Your task to perform on an android device: Clear the shopping cart on walmart. Search for "usb-b" on walmart, select the first entry, add it to the cart, then select checkout. Image 0: 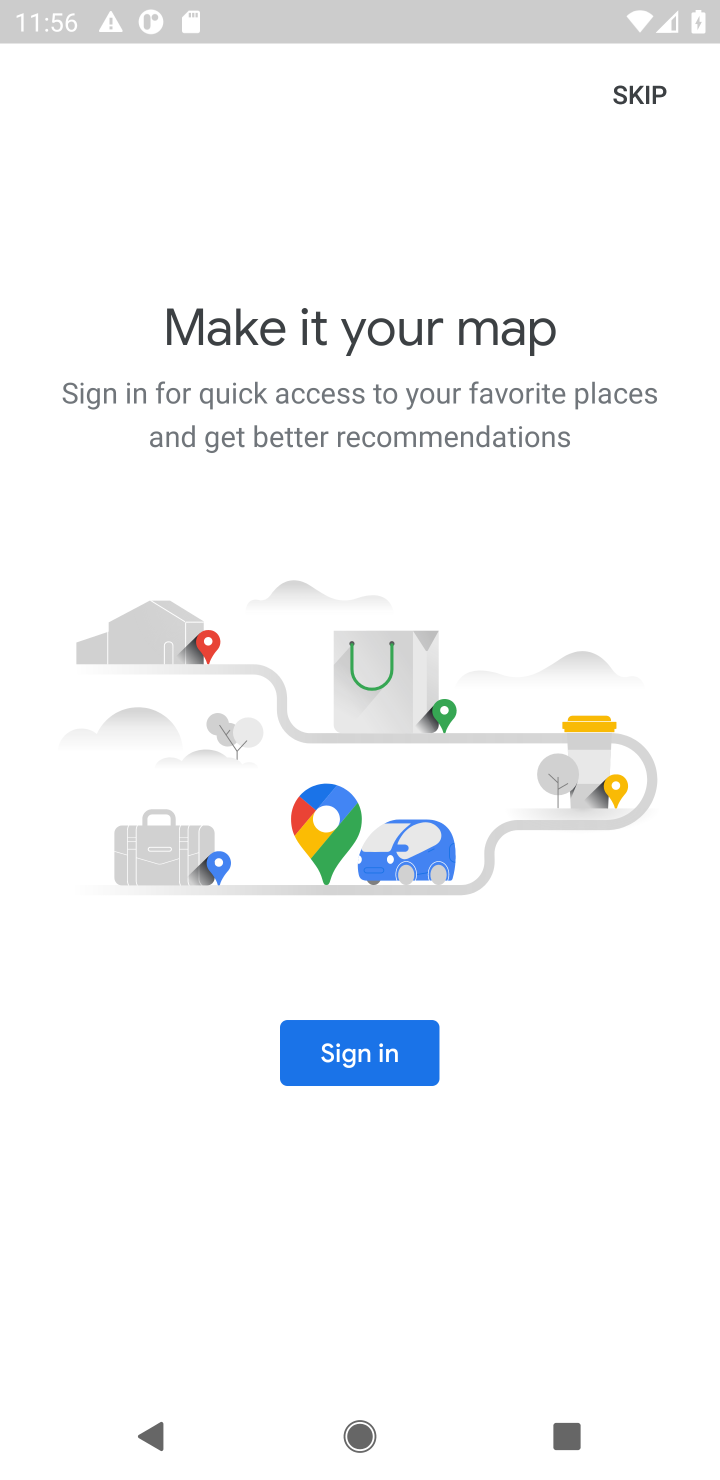
Step 0: press home button
Your task to perform on an android device: Clear the shopping cart on walmart. Search for "usb-b" on walmart, select the first entry, add it to the cart, then select checkout. Image 1: 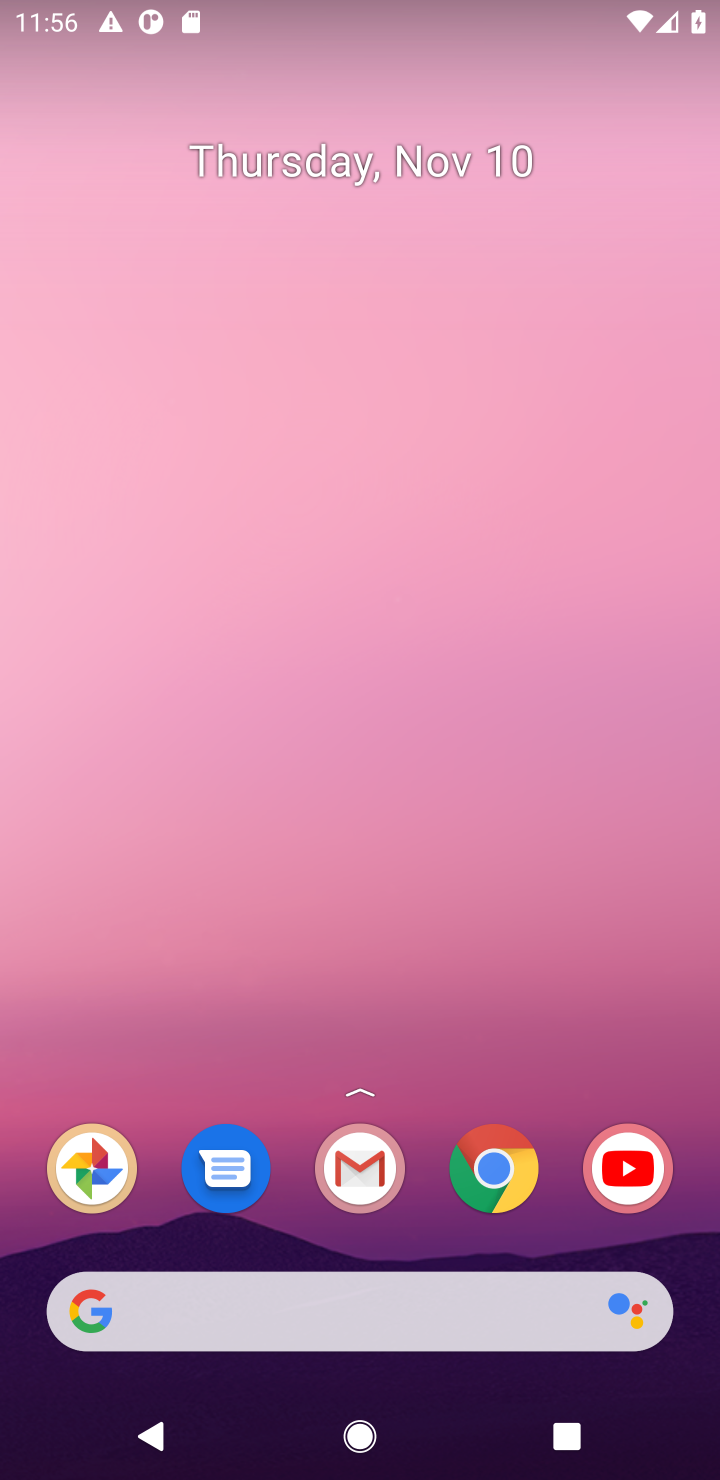
Step 1: click (495, 1185)
Your task to perform on an android device: Clear the shopping cart on walmart. Search for "usb-b" on walmart, select the first entry, add it to the cart, then select checkout. Image 2: 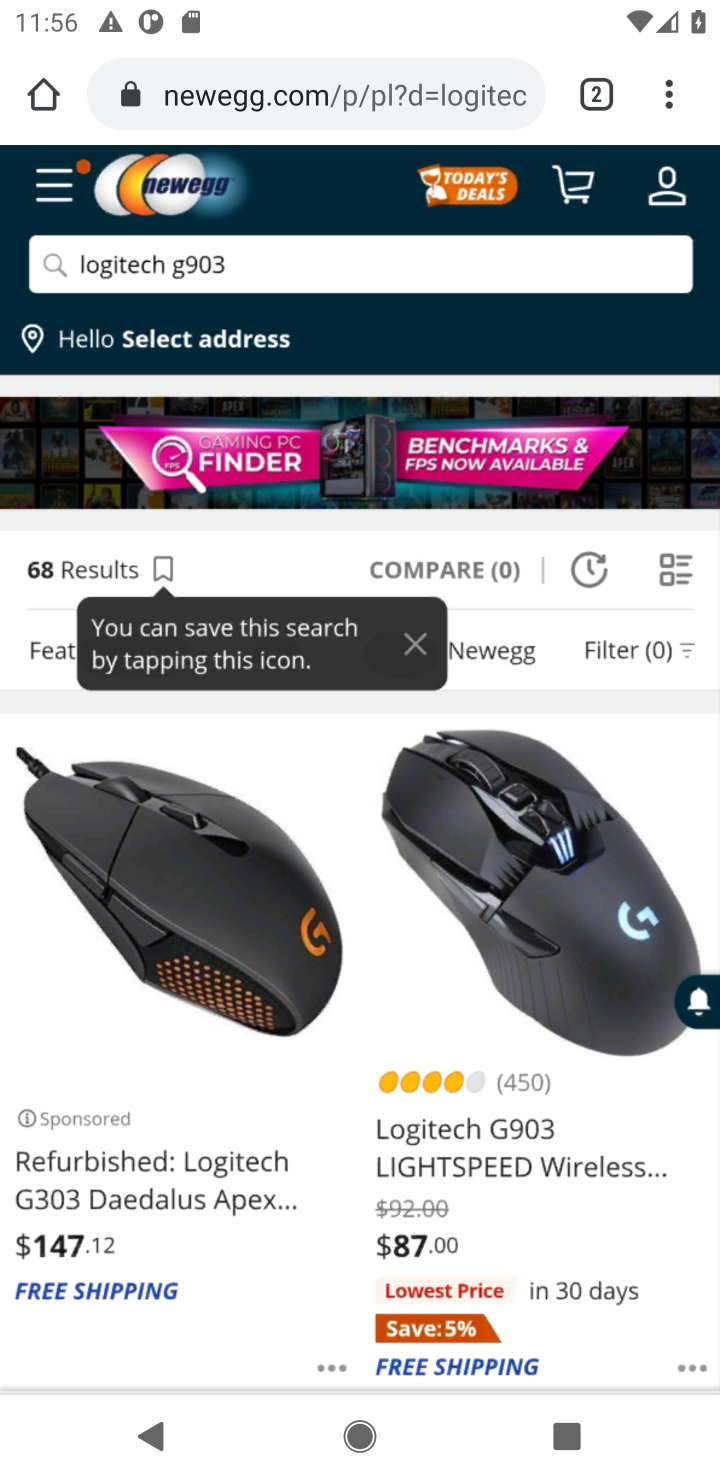
Step 2: click (249, 102)
Your task to perform on an android device: Clear the shopping cart on walmart. Search for "usb-b" on walmart, select the first entry, add it to the cart, then select checkout. Image 3: 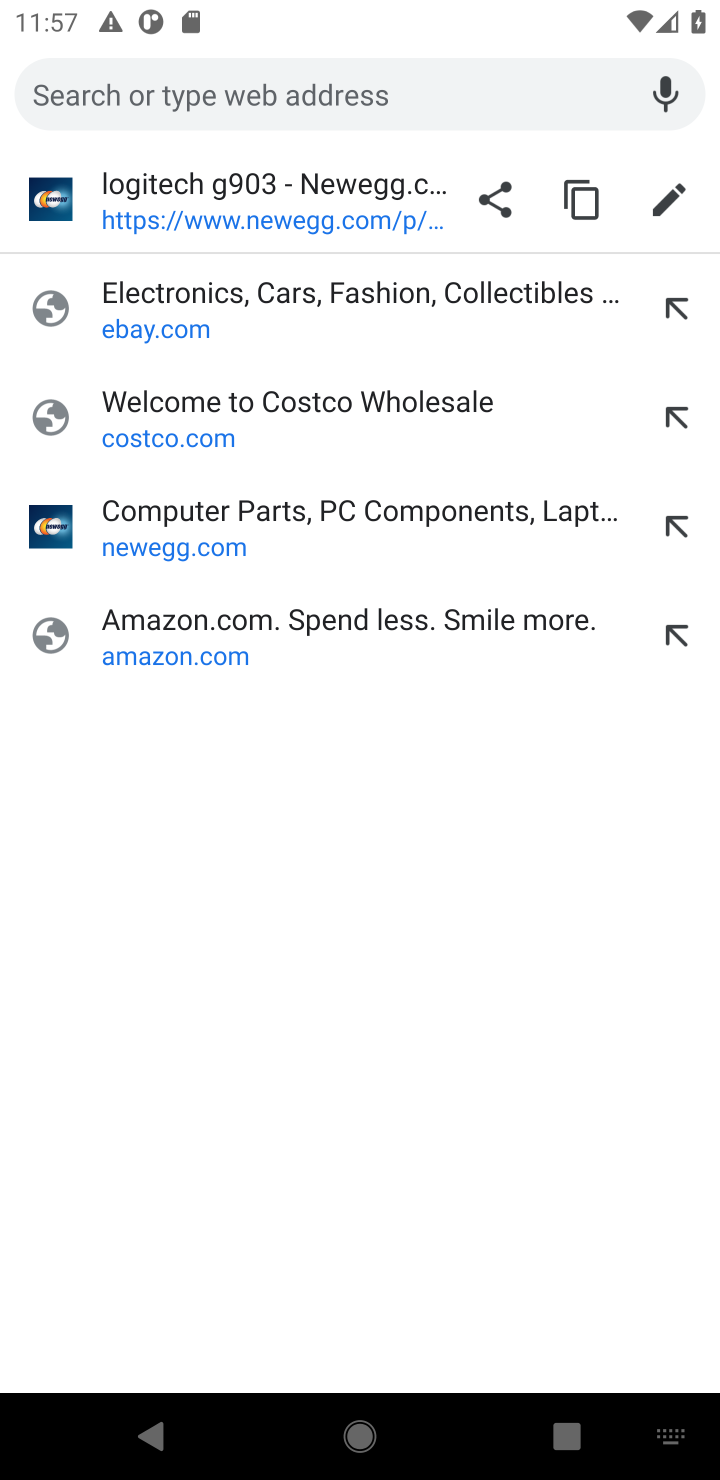
Step 3: type "walmart.com"
Your task to perform on an android device: Clear the shopping cart on walmart. Search for "usb-b" on walmart, select the first entry, add it to the cart, then select checkout. Image 4: 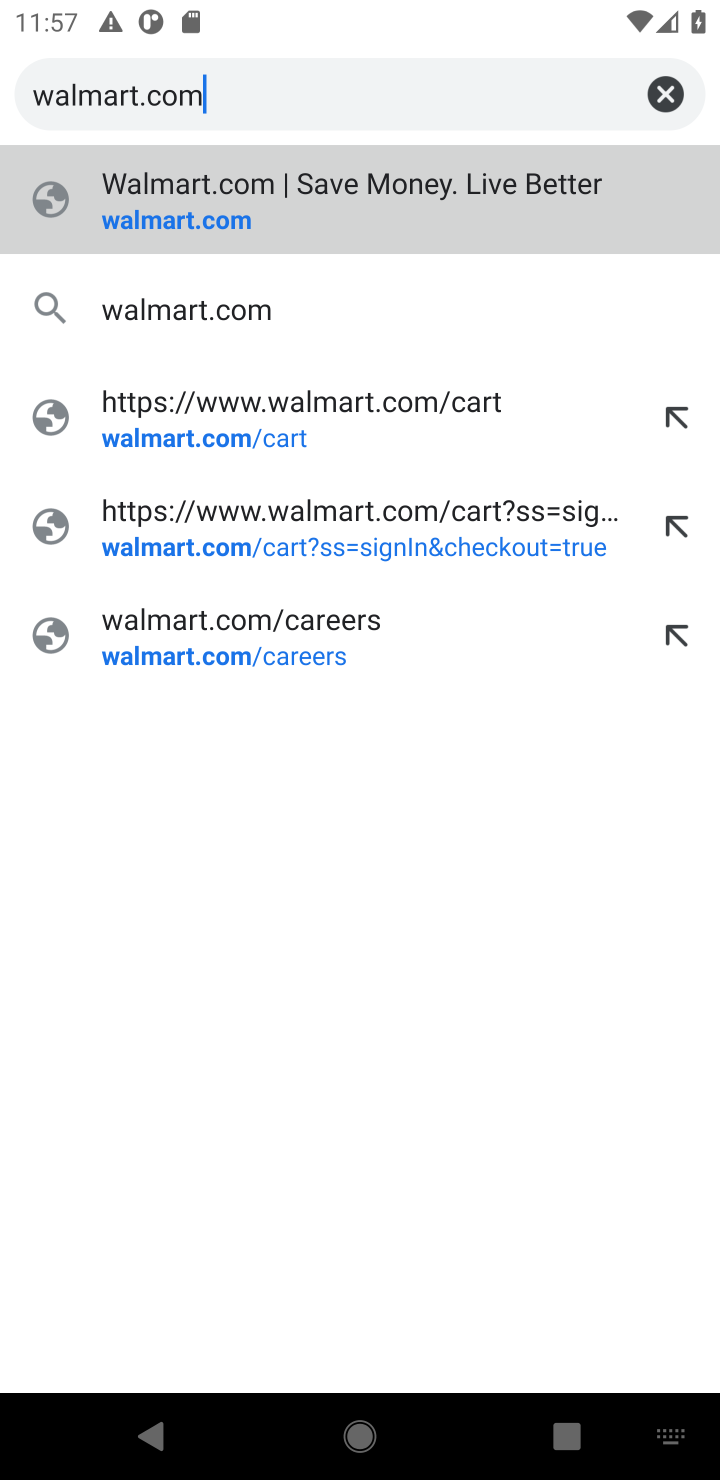
Step 4: click (196, 219)
Your task to perform on an android device: Clear the shopping cart on walmart. Search for "usb-b" on walmart, select the first entry, add it to the cart, then select checkout. Image 5: 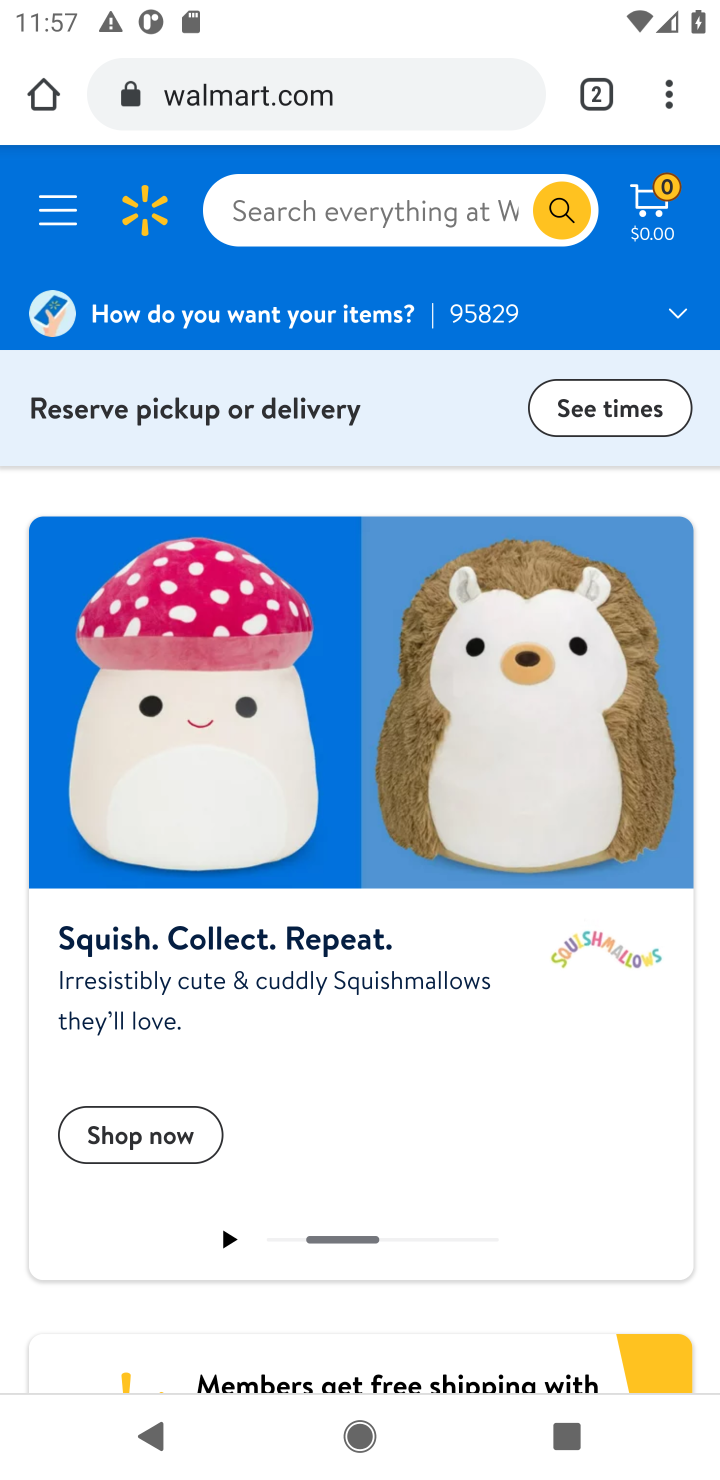
Step 5: click (647, 209)
Your task to perform on an android device: Clear the shopping cart on walmart. Search for "usb-b" on walmart, select the first entry, add it to the cart, then select checkout. Image 6: 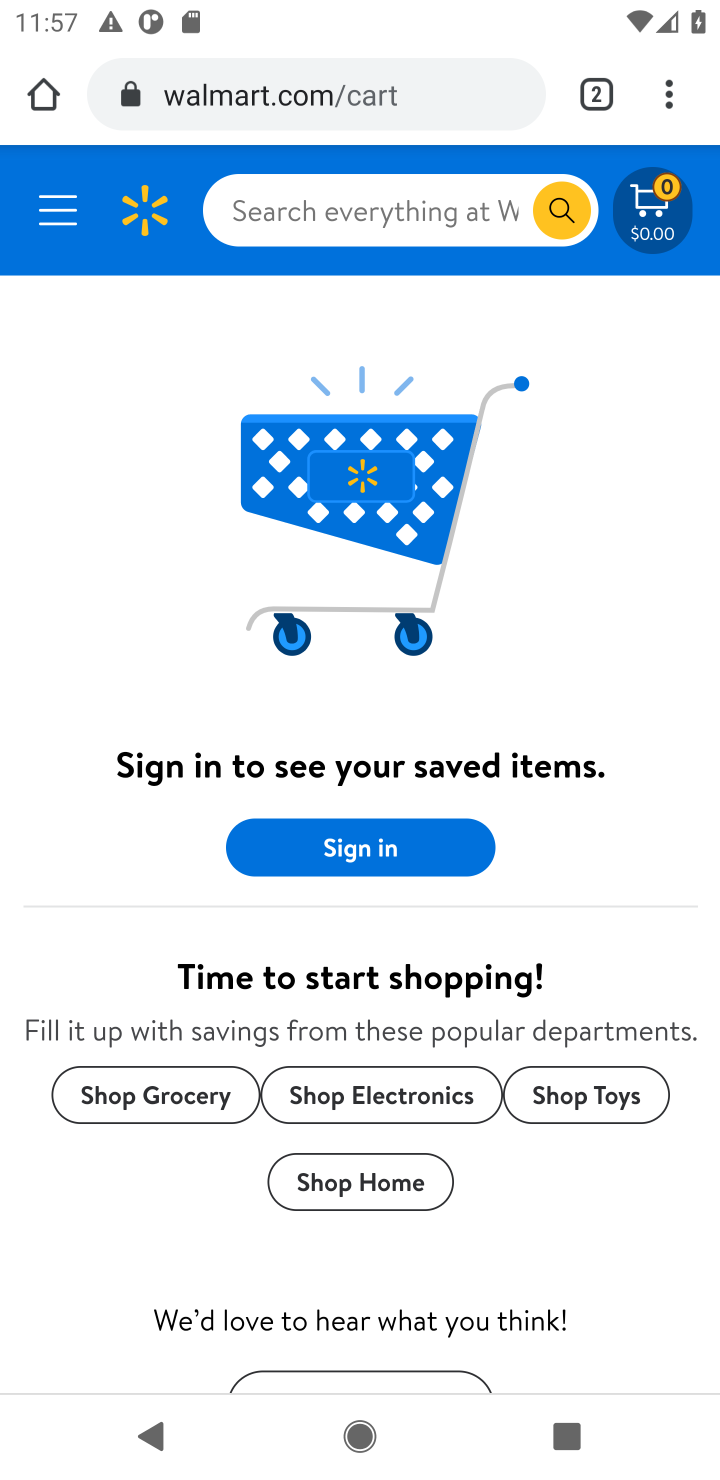
Step 6: click (259, 199)
Your task to perform on an android device: Clear the shopping cart on walmart. Search for "usb-b" on walmart, select the first entry, add it to the cart, then select checkout. Image 7: 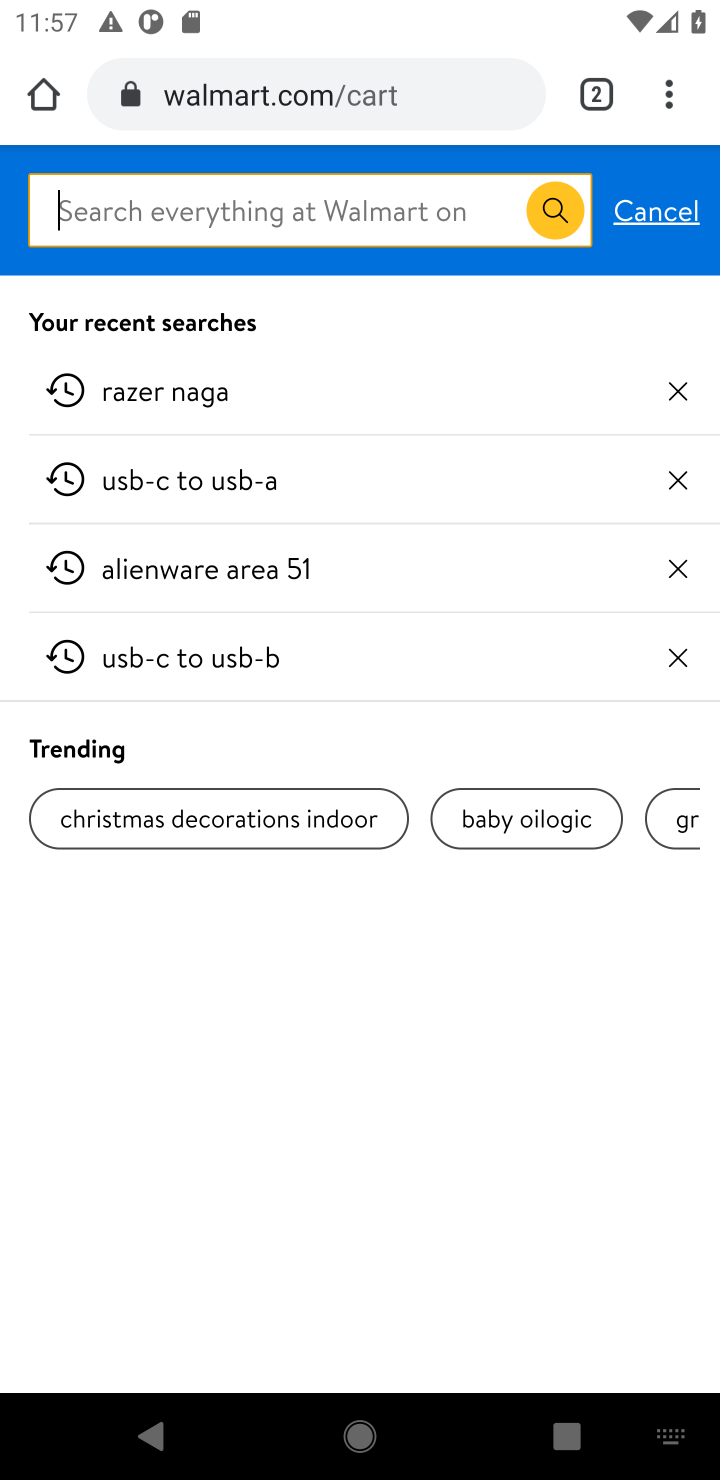
Step 7: type "usb-b"
Your task to perform on an android device: Clear the shopping cart on walmart. Search for "usb-b" on walmart, select the first entry, add it to the cart, then select checkout. Image 8: 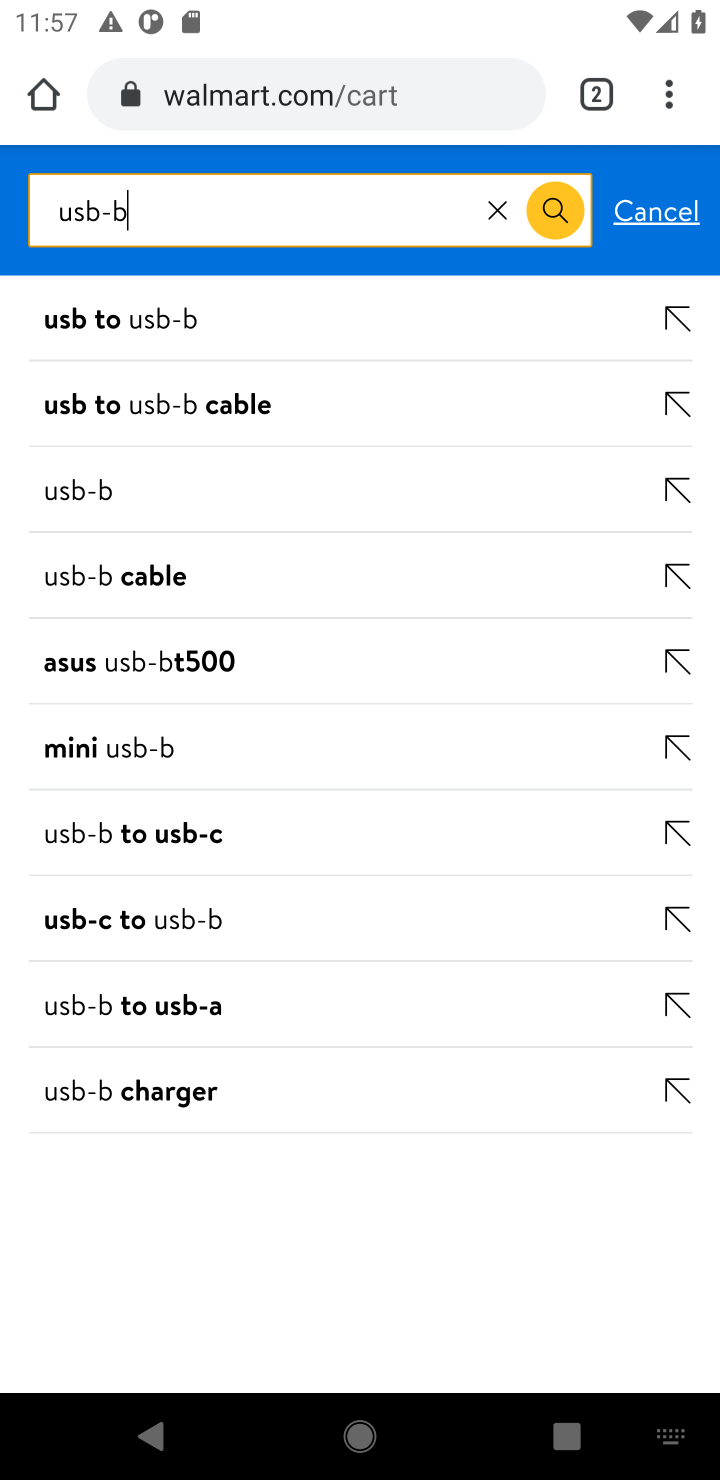
Step 8: click (56, 506)
Your task to perform on an android device: Clear the shopping cart on walmart. Search for "usb-b" on walmart, select the first entry, add it to the cart, then select checkout. Image 9: 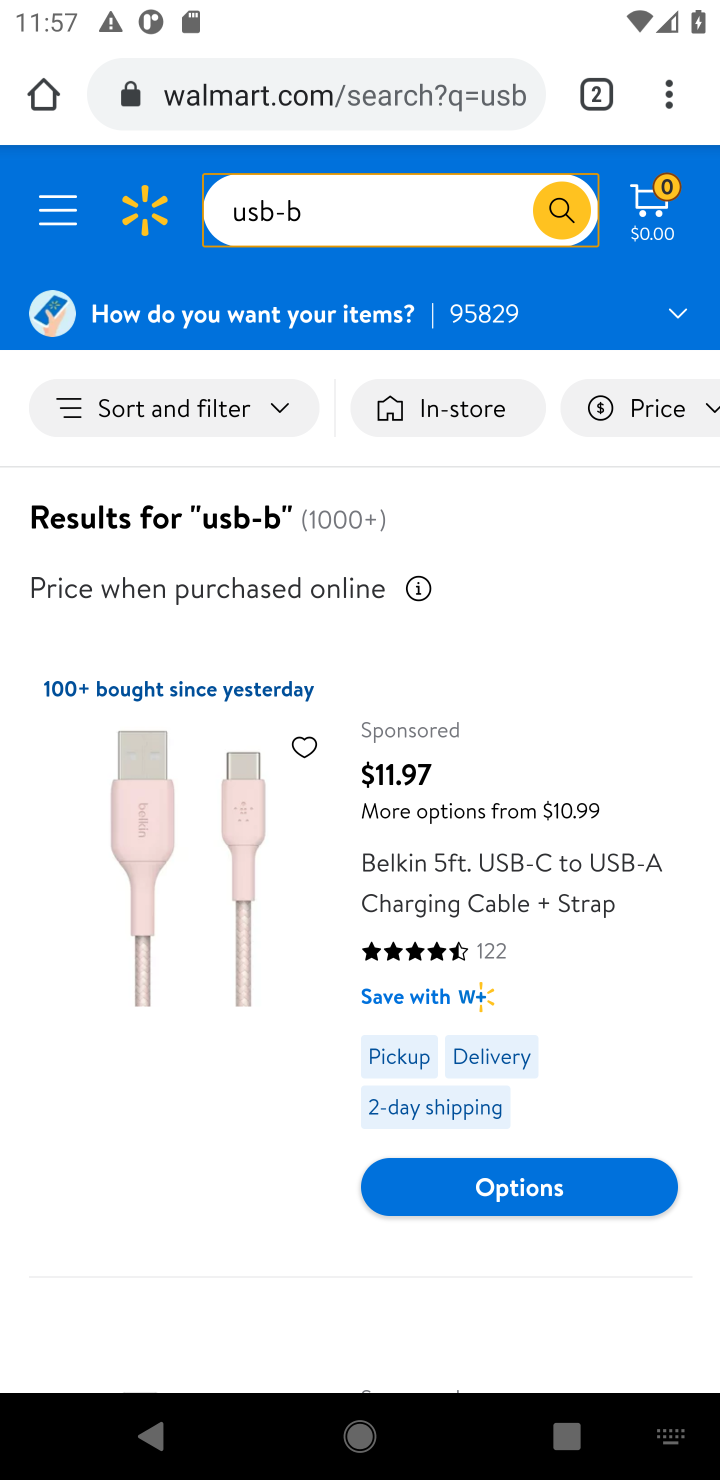
Step 9: task complete